Your task to perform on an android device: change text size in settings app Image 0: 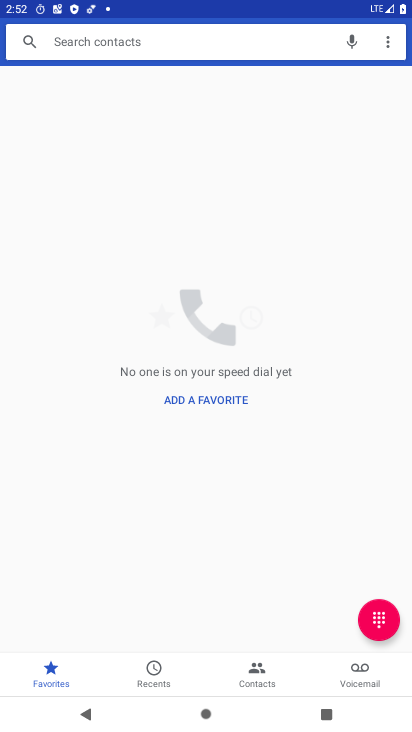
Step 0: press home button
Your task to perform on an android device: change text size in settings app Image 1: 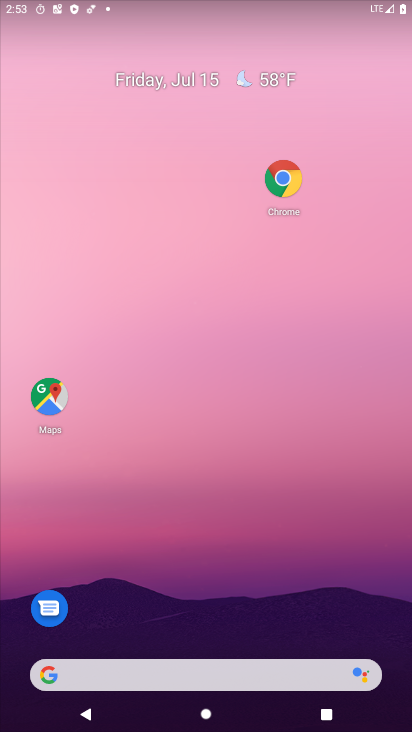
Step 1: drag from (136, 663) to (191, 86)
Your task to perform on an android device: change text size in settings app Image 2: 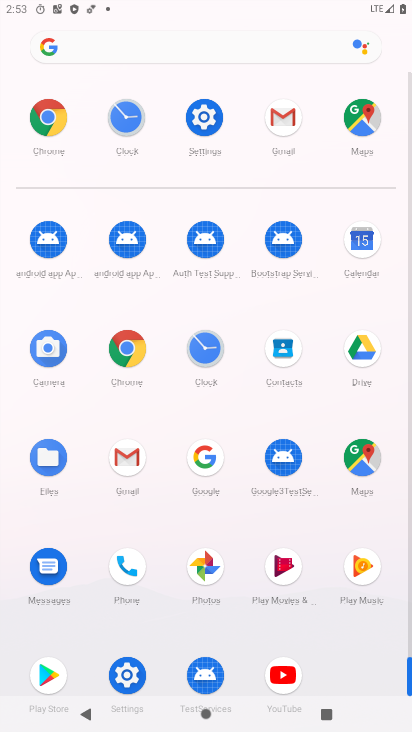
Step 2: click (201, 134)
Your task to perform on an android device: change text size in settings app Image 3: 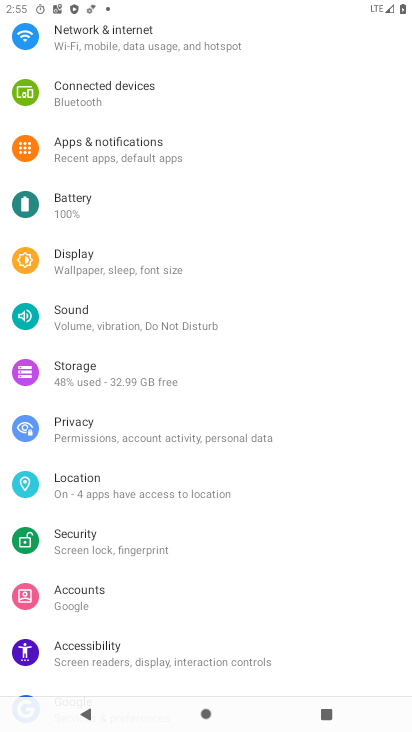
Step 3: click (88, 258)
Your task to perform on an android device: change text size in settings app Image 4: 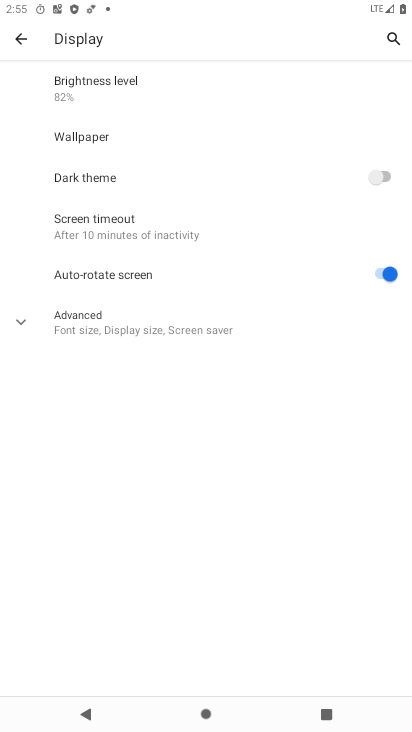
Step 4: click (89, 316)
Your task to perform on an android device: change text size in settings app Image 5: 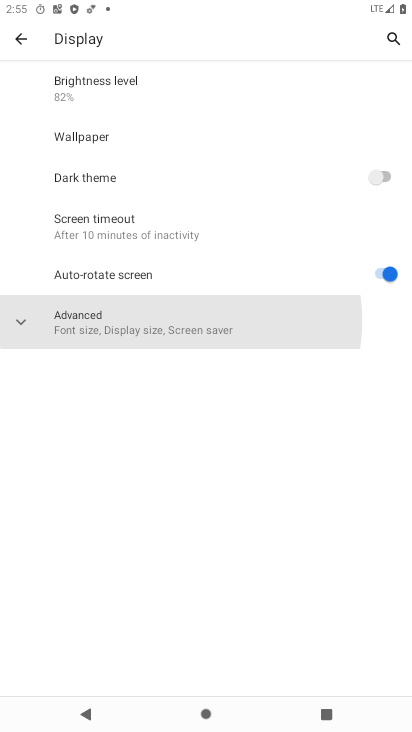
Step 5: click (89, 316)
Your task to perform on an android device: change text size in settings app Image 6: 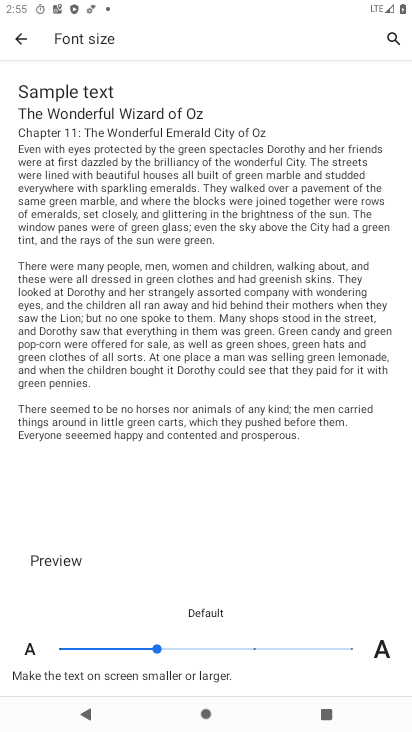
Step 6: click (389, 654)
Your task to perform on an android device: change text size in settings app Image 7: 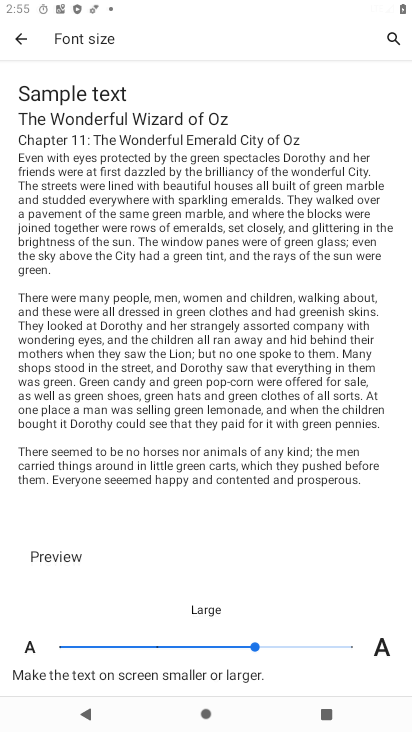
Step 7: task complete